Your task to perform on an android device: turn off notifications settings in the gmail app Image 0: 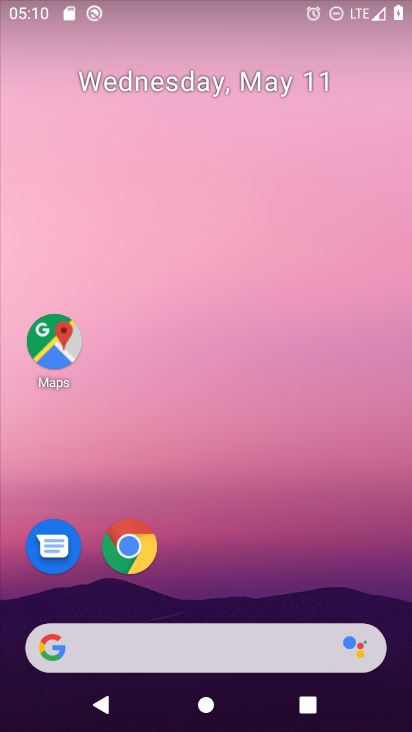
Step 0: drag from (298, 637) to (306, 46)
Your task to perform on an android device: turn off notifications settings in the gmail app Image 1: 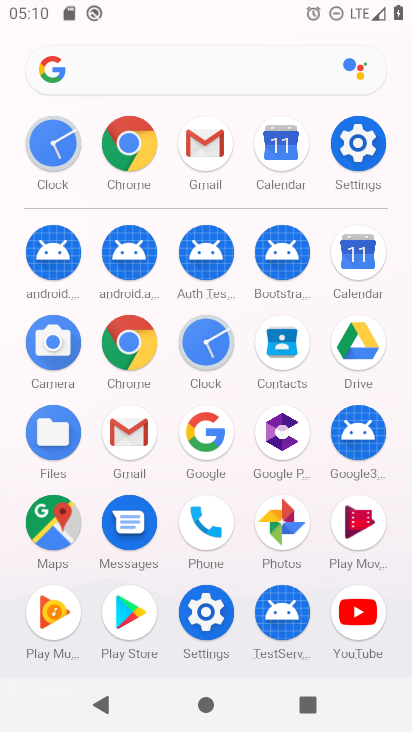
Step 1: click (135, 435)
Your task to perform on an android device: turn off notifications settings in the gmail app Image 2: 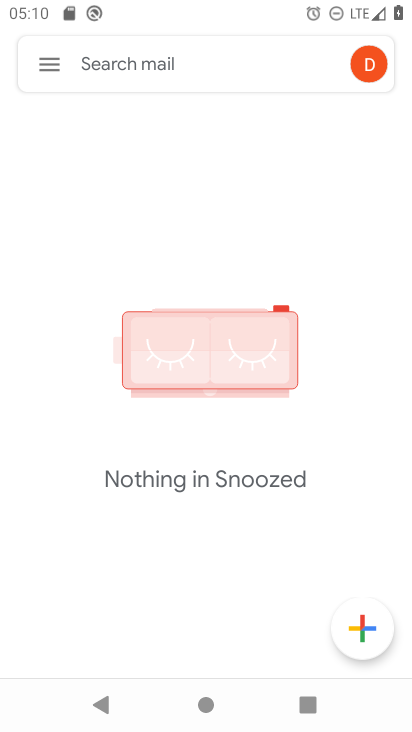
Step 2: click (51, 60)
Your task to perform on an android device: turn off notifications settings in the gmail app Image 3: 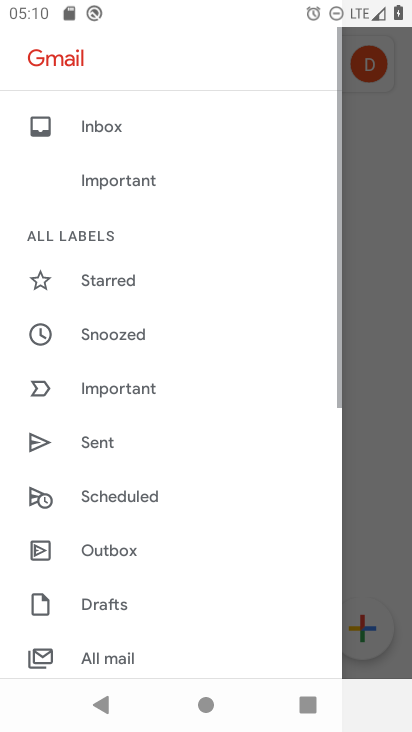
Step 3: drag from (184, 654) to (253, 32)
Your task to perform on an android device: turn off notifications settings in the gmail app Image 4: 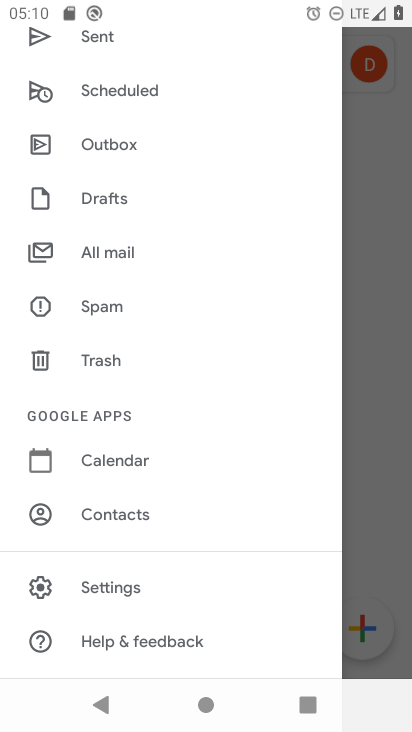
Step 4: click (124, 591)
Your task to perform on an android device: turn off notifications settings in the gmail app Image 5: 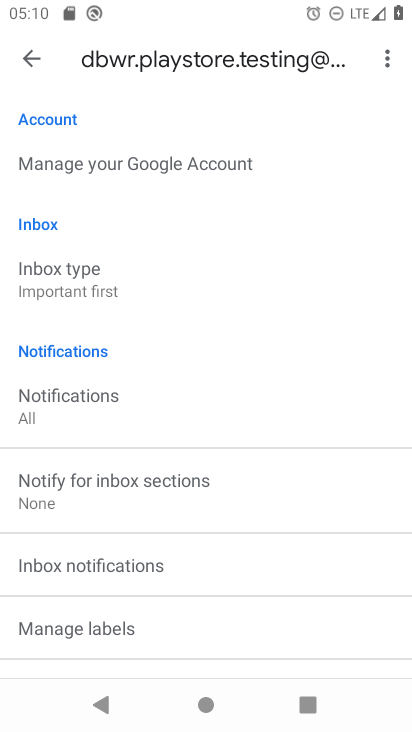
Step 5: click (190, 630)
Your task to perform on an android device: turn off notifications settings in the gmail app Image 6: 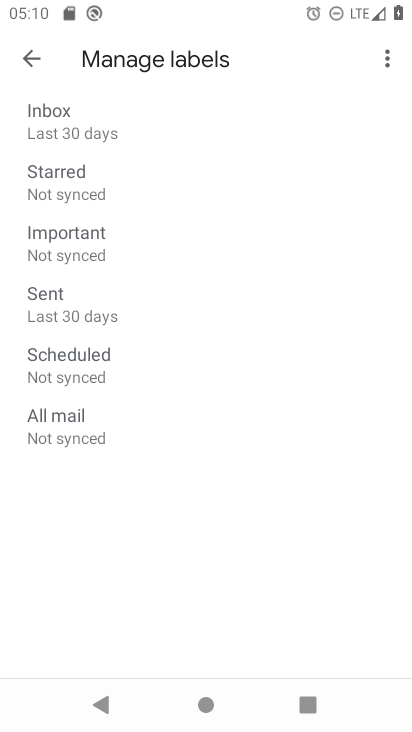
Step 6: press back button
Your task to perform on an android device: turn off notifications settings in the gmail app Image 7: 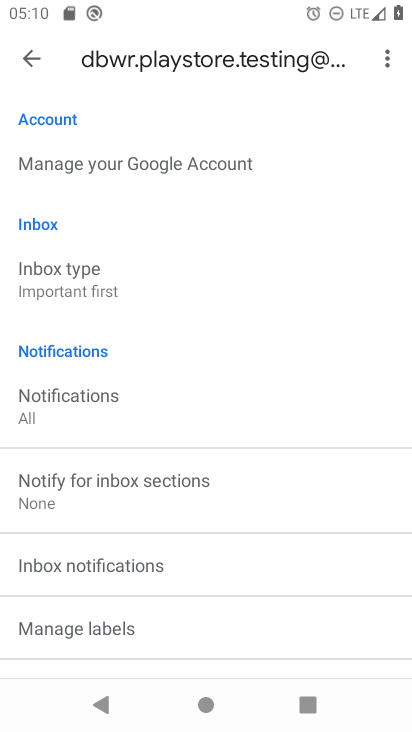
Step 7: drag from (308, 645) to (337, 167)
Your task to perform on an android device: turn off notifications settings in the gmail app Image 8: 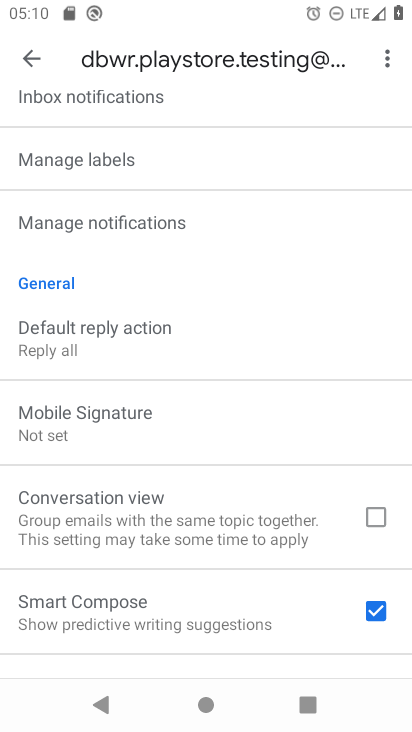
Step 8: click (149, 239)
Your task to perform on an android device: turn off notifications settings in the gmail app Image 9: 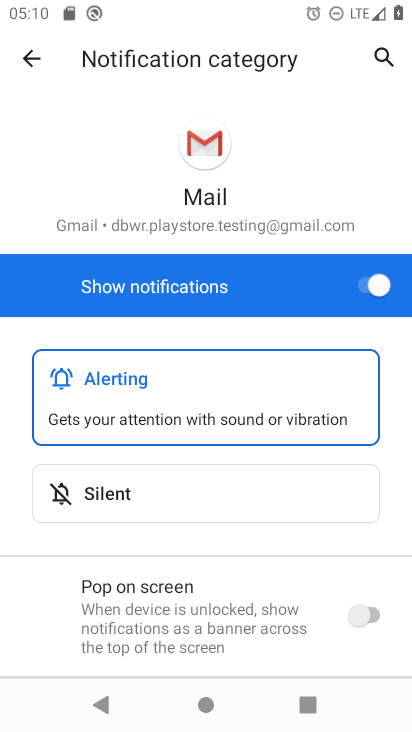
Step 9: click (367, 282)
Your task to perform on an android device: turn off notifications settings in the gmail app Image 10: 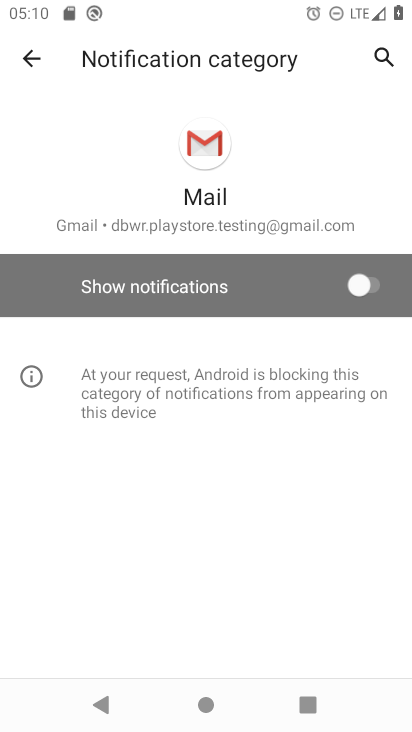
Step 10: task complete